Your task to perform on an android device: turn off priority inbox in the gmail app Image 0: 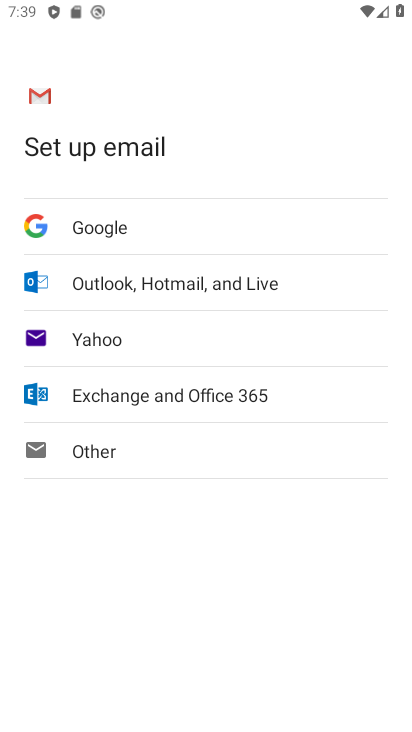
Step 0: press home button
Your task to perform on an android device: turn off priority inbox in the gmail app Image 1: 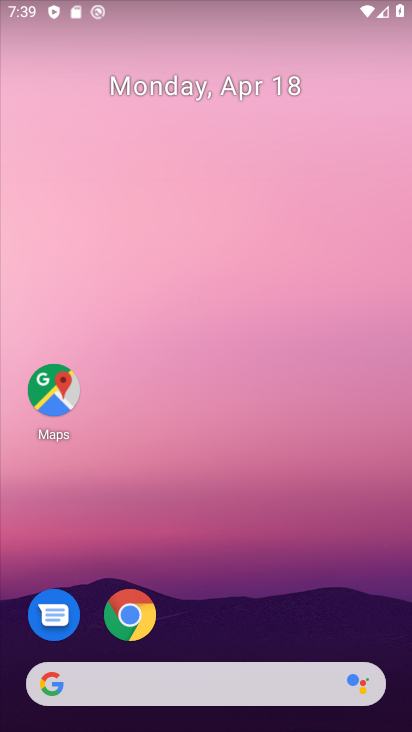
Step 1: drag from (319, 532) to (357, 65)
Your task to perform on an android device: turn off priority inbox in the gmail app Image 2: 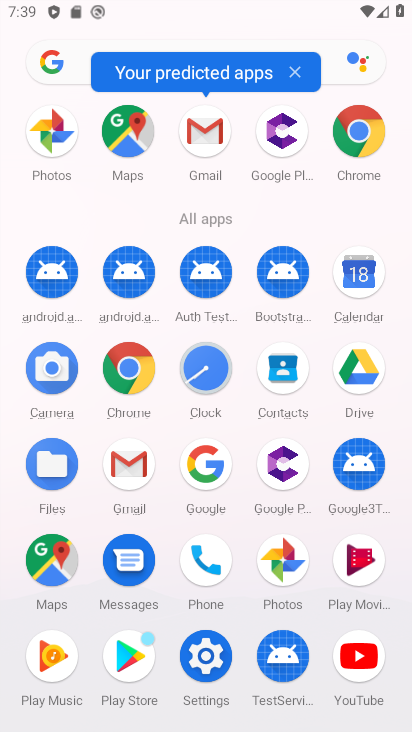
Step 2: click (200, 124)
Your task to perform on an android device: turn off priority inbox in the gmail app Image 3: 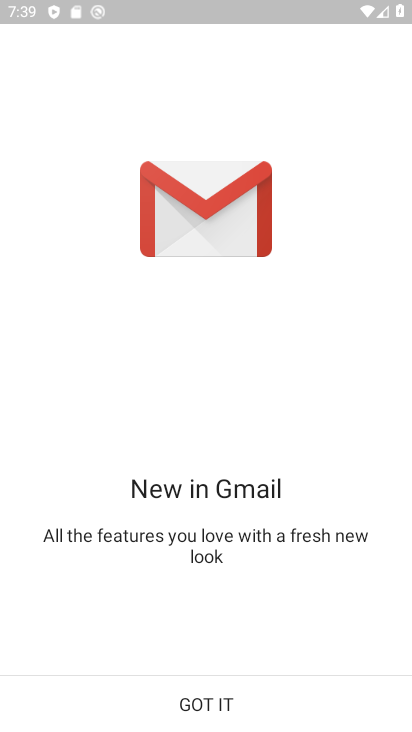
Step 3: click (195, 703)
Your task to perform on an android device: turn off priority inbox in the gmail app Image 4: 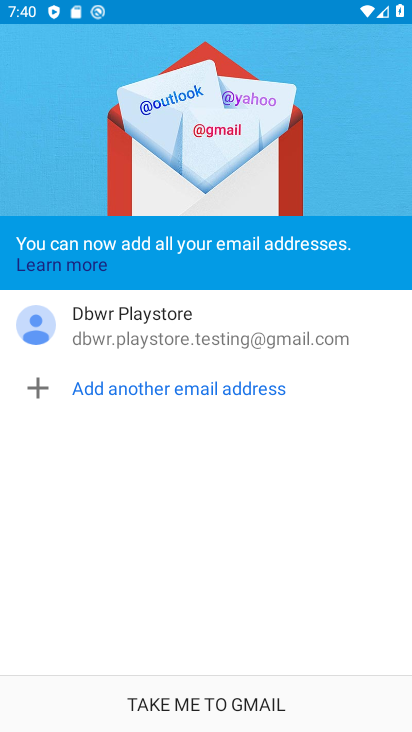
Step 4: click (195, 703)
Your task to perform on an android device: turn off priority inbox in the gmail app Image 5: 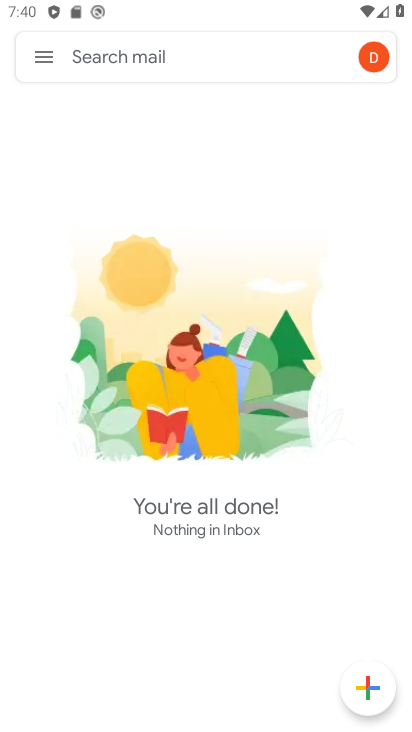
Step 5: click (48, 56)
Your task to perform on an android device: turn off priority inbox in the gmail app Image 6: 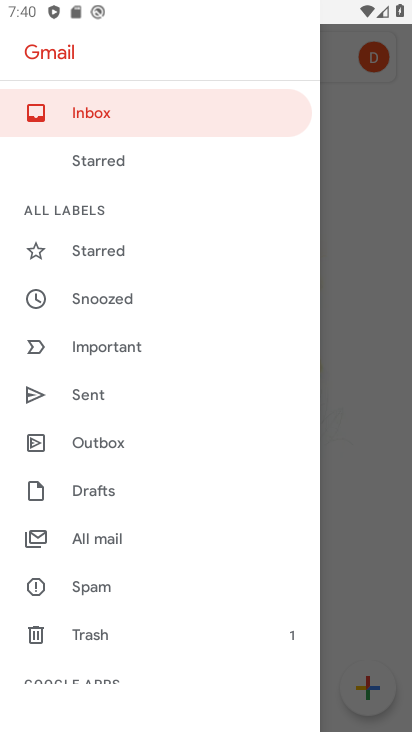
Step 6: drag from (154, 587) to (174, 163)
Your task to perform on an android device: turn off priority inbox in the gmail app Image 7: 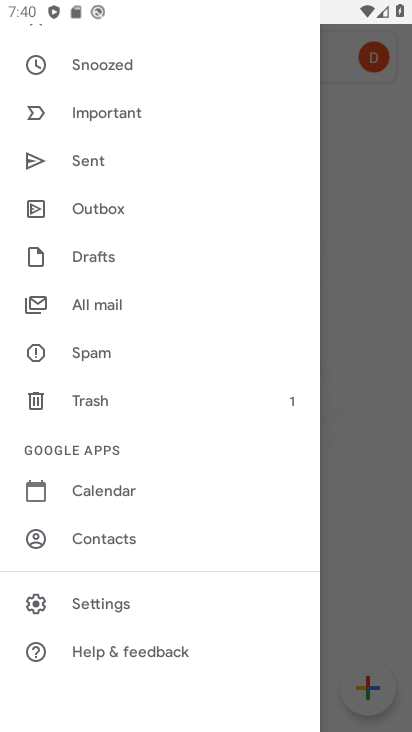
Step 7: click (107, 600)
Your task to perform on an android device: turn off priority inbox in the gmail app Image 8: 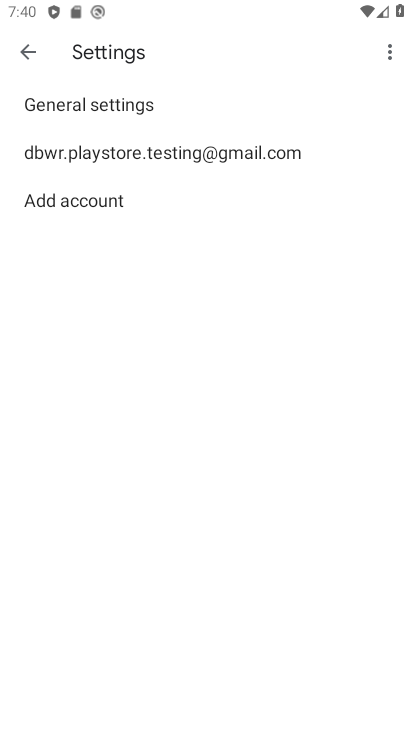
Step 8: click (254, 145)
Your task to perform on an android device: turn off priority inbox in the gmail app Image 9: 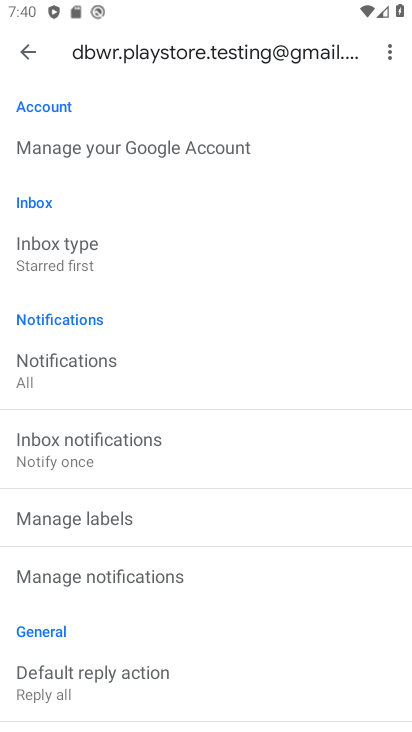
Step 9: click (86, 240)
Your task to perform on an android device: turn off priority inbox in the gmail app Image 10: 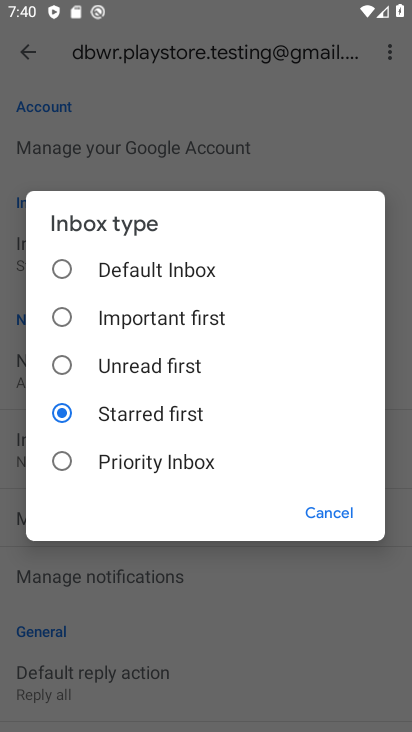
Step 10: click (53, 260)
Your task to perform on an android device: turn off priority inbox in the gmail app Image 11: 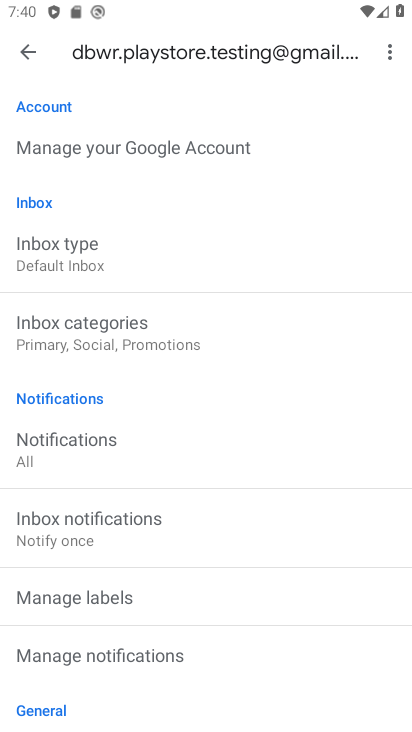
Step 11: task complete